Your task to perform on an android device: Clear the shopping cart on walmart.com. Add macbook pro to the cart on walmart.com, then select checkout. Image 0: 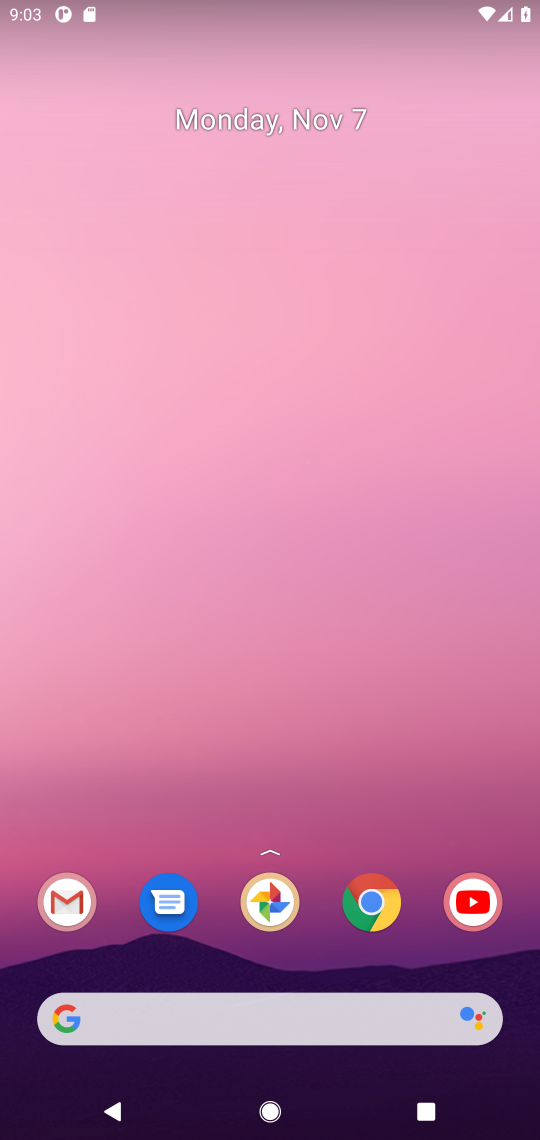
Step 0: click (368, 917)
Your task to perform on an android device: Clear the shopping cart on walmart.com. Add macbook pro to the cart on walmart.com, then select checkout. Image 1: 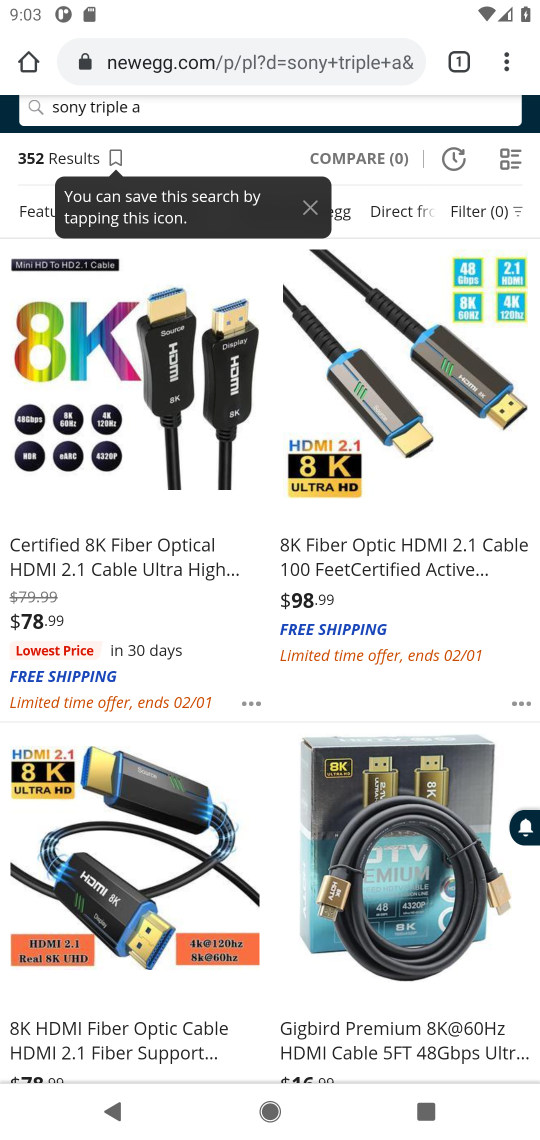
Step 1: click (248, 67)
Your task to perform on an android device: Clear the shopping cart on walmart.com. Add macbook pro to the cart on walmart.com, then select checkout. Image 2: 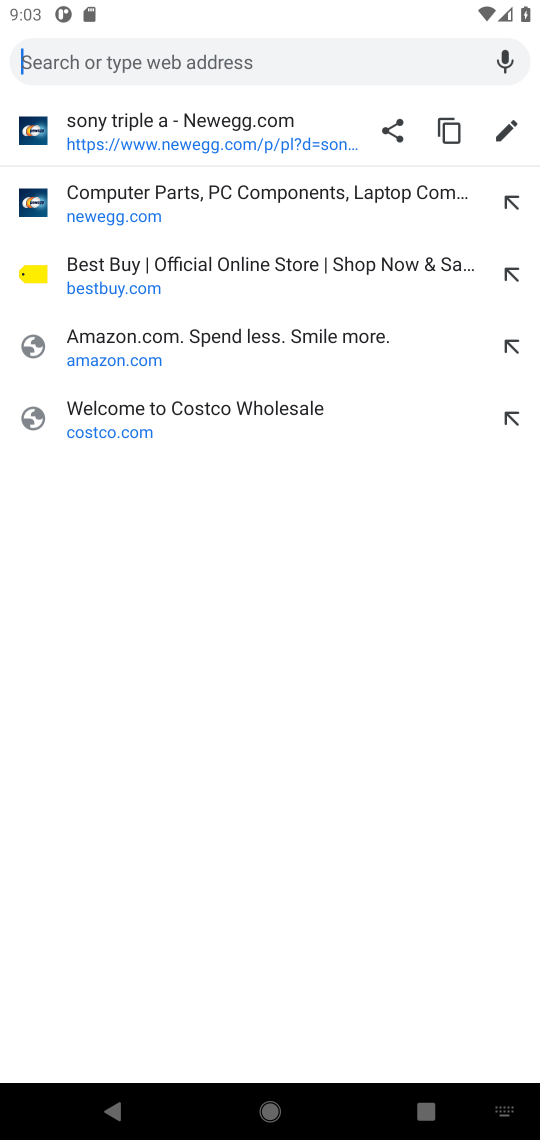
Step 2: click (248, 67)
Your task to perform on an android device: Clear the shopping cart on walmart.com. Add macbook pro to the cart on walmart.com, then select checkout. Image 3: 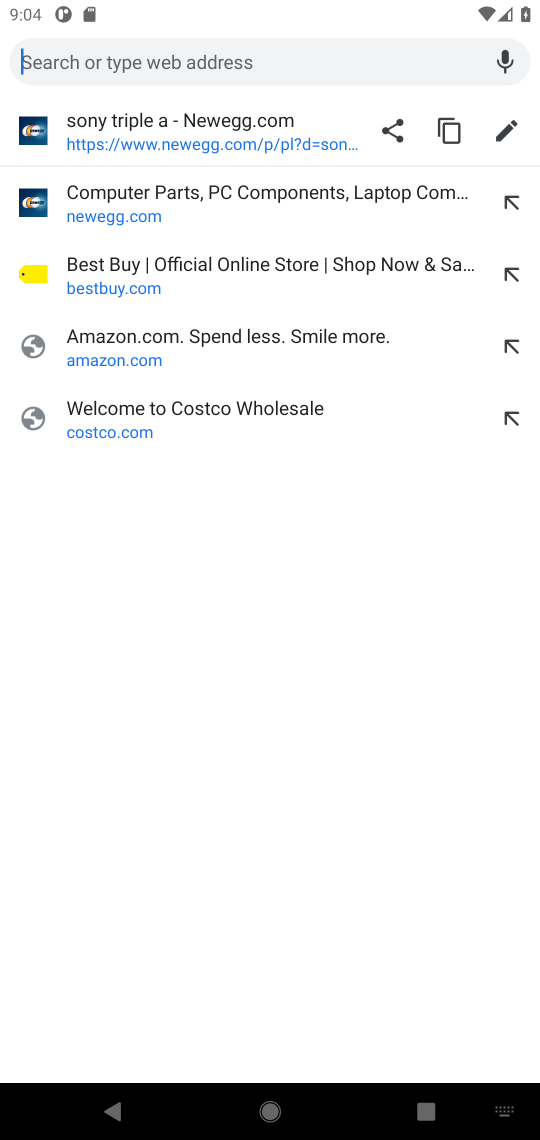
Step 3: type "walmart.com"
Your task to perform on an android device: Clear the shopping cart on walmart.com. Add macbook pro to the cart on walmart.com, then select checkout. Image 4: 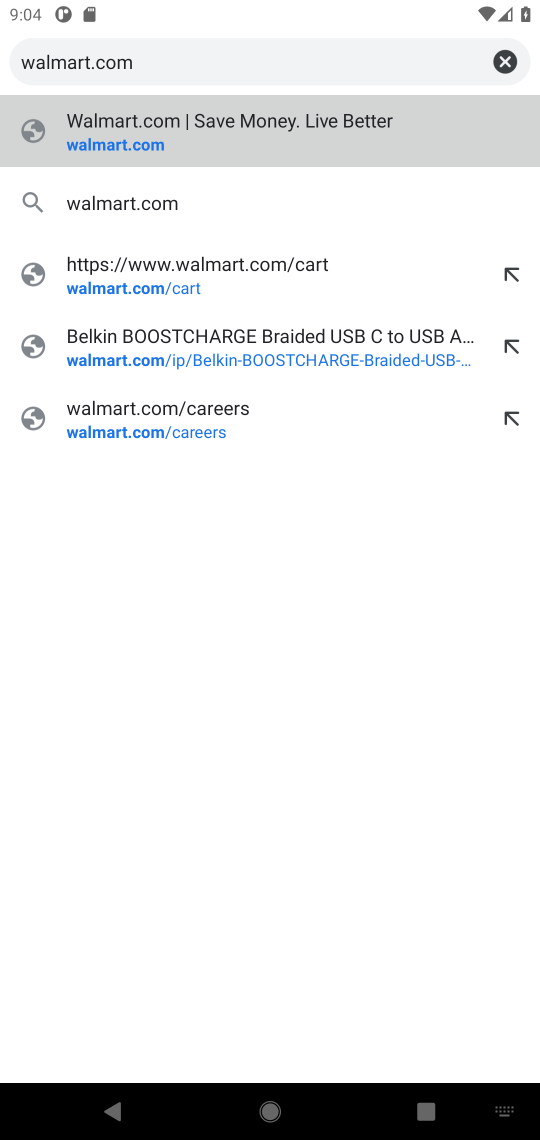
Step 4: click (138, 139)
Your task to perform on an android device: Clear the shopping cart on walmart.com. Add macbook pro to the cart on walmart.com, then select checkout. Image 5: 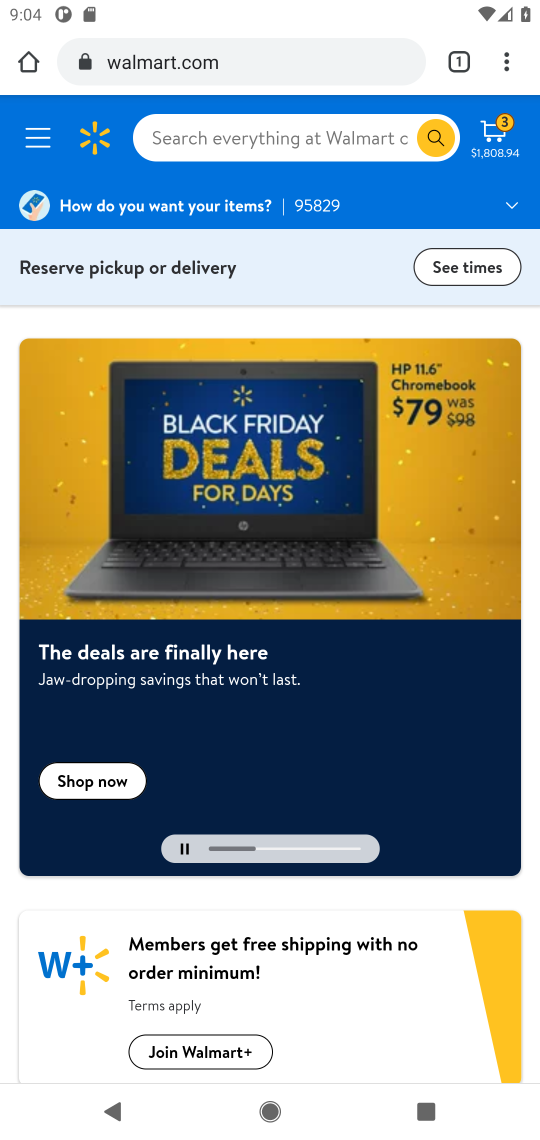
Step 5: click (500, 125)
Your task to perform on an android device: Clear the shopping cart on walmart.com. Add macbook pro to the cart on walmart.com, then select checkout. Image 6: 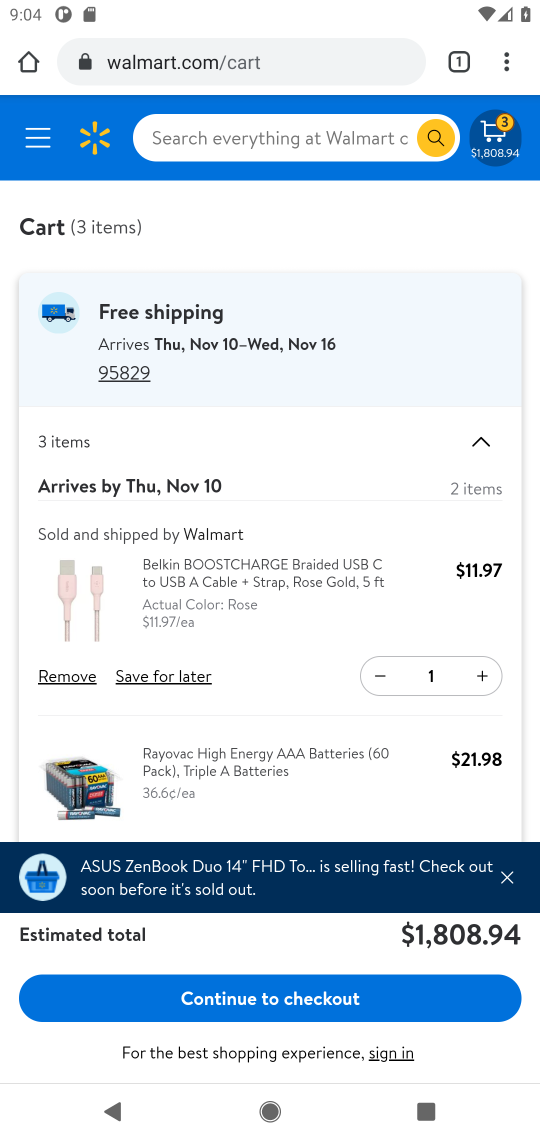
Step 6: click (49, 678)
Your task to perform on an android device: Clear the shopping cart on walmart.com. Add macbook pro to the cart on walmart.com, then select checkout. Image 7: 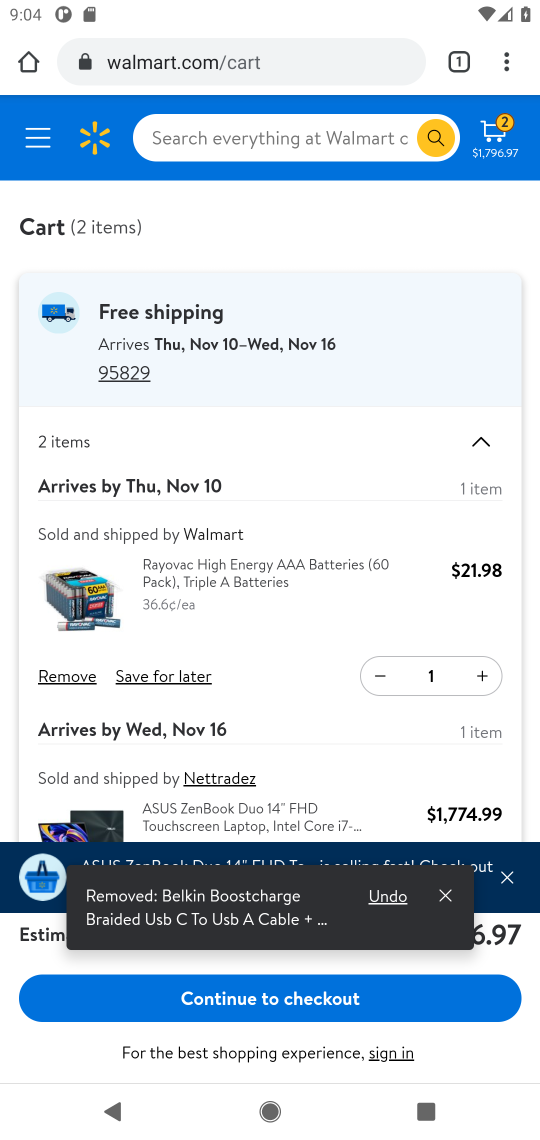
Step 7: click (64, 686)
Your task to perform on an android device: Clear the shopping cart on walmart.com. Add macbook pro to the cart on walmart.com, then select checkout. Image 8: 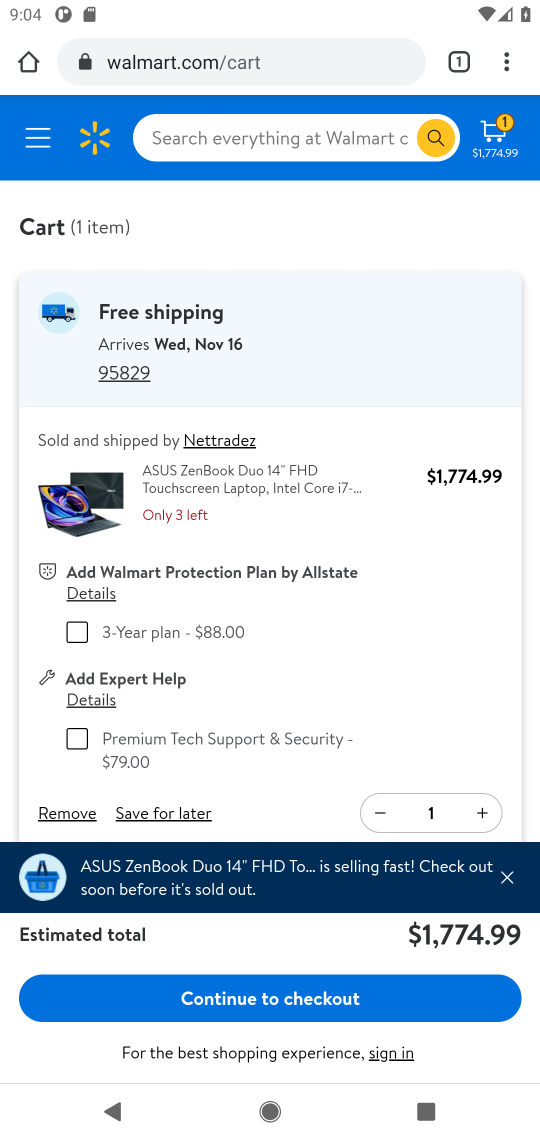
Step 8: click (56, 816)
Your task to perform on an android device: Clear the shopping cart on walmart.com. Add macbook pro to the cart on walmart.com, then select checkout. Image 9: 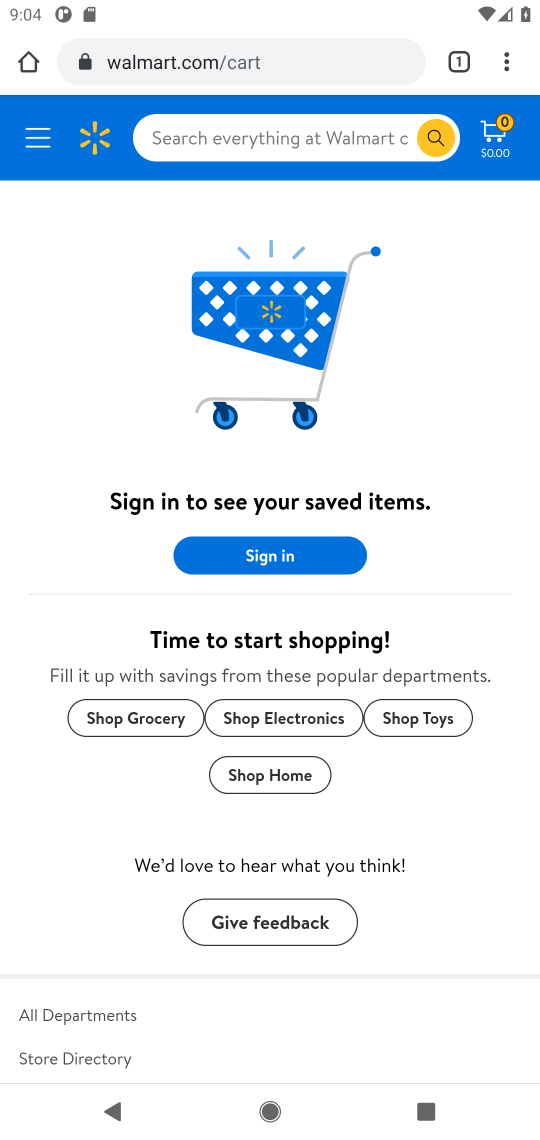
Step 9: click (247, 130)
Your task to perform on an android device: Clear the shopping cart on walmart.com. Add macbook pro to the cart on walmart.com, then select checkout. Image 10: 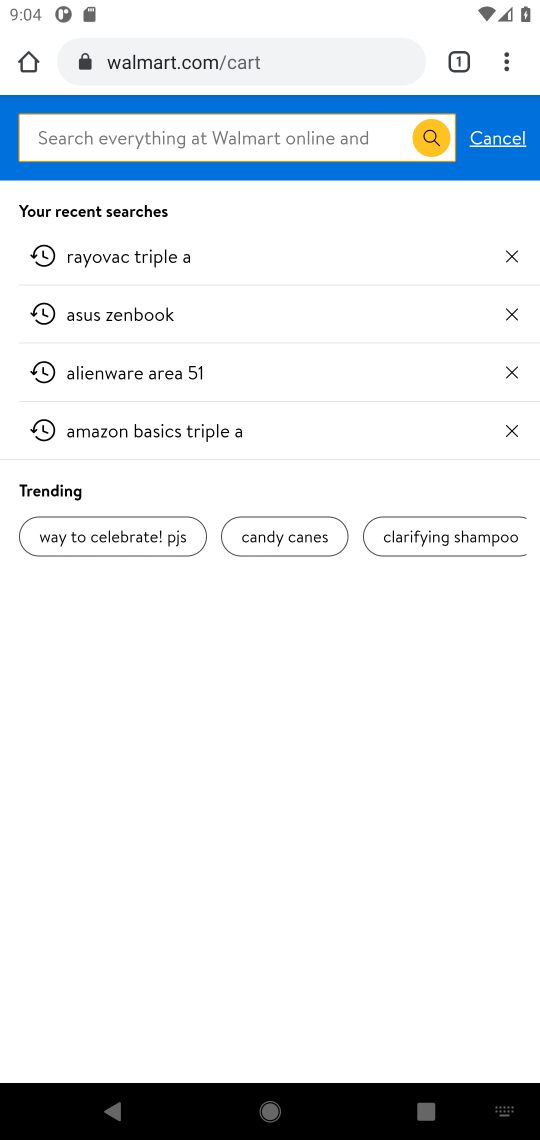
Step 10: type "macbook pro"
Your task to perform on an android device: Clear the shopping cart on walmart.com. Add macbook pro to the cart on walmart.com, then select checkout. Image 11: 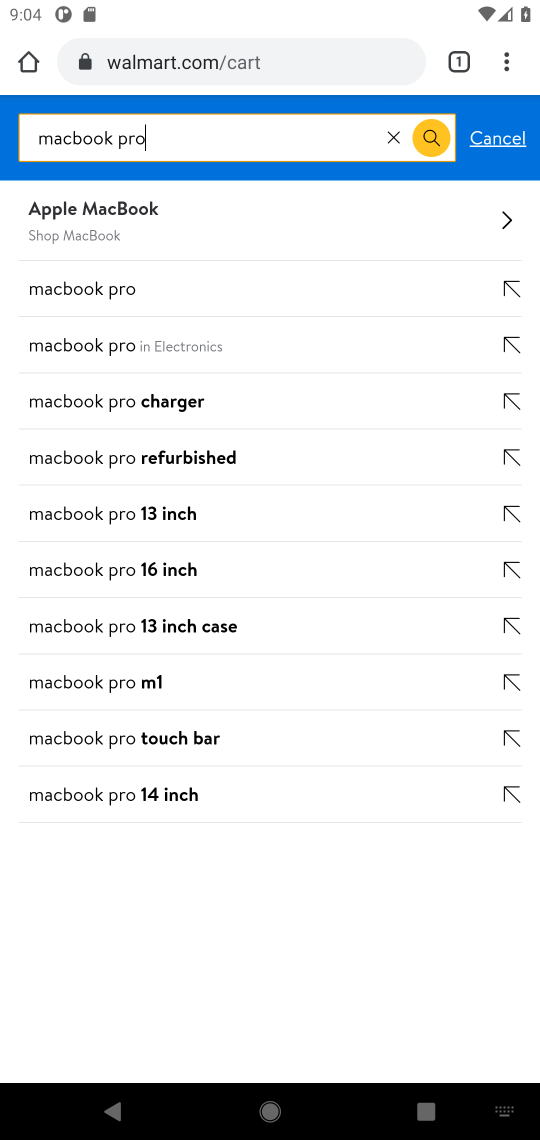
Step 11: click (81, 295)
Your task to perform on an android device: Clear the shopping cart on walmart.com. Add macbook pro to the cart on walmart.com, then select checkout. Image 12: 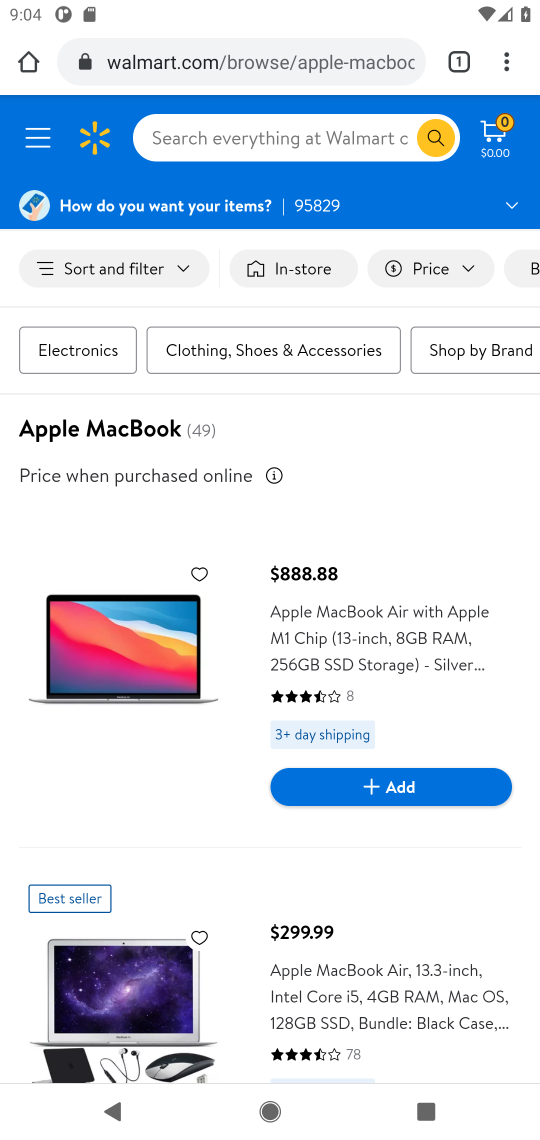
Step 12: drag from (185, 856) to (185, 414)
Your task to perform on an android device: Clear the shopping cart on walmart.com. Add macbook pro to the cart on walmart.com, then select checkout. Image 13: 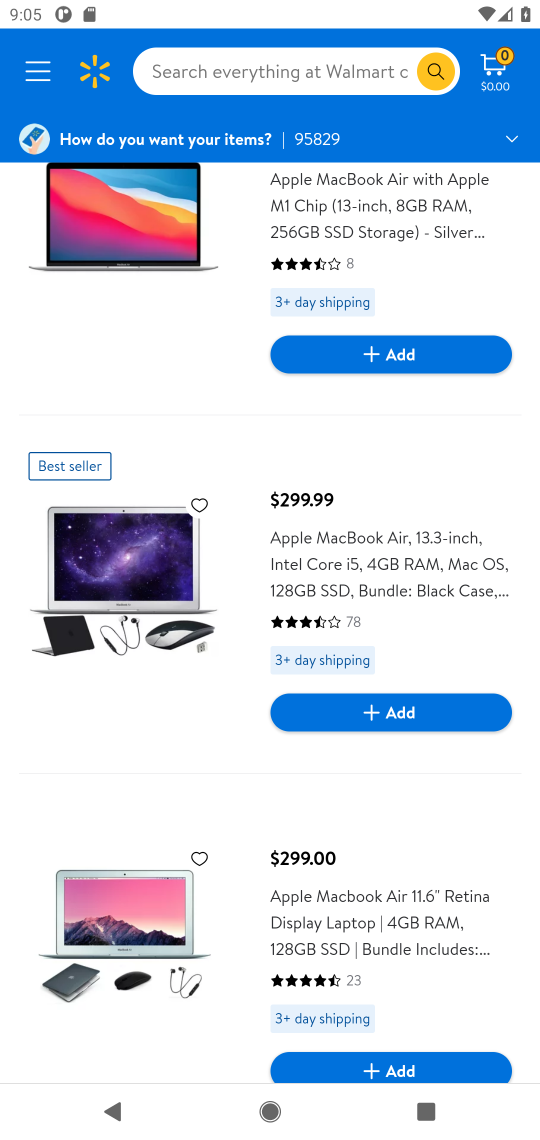
Step 13: drag from (164, 822) to (146, 346)
Your task to perform on an android device: Clear the shopping cart on walmart.com. Add macbook pro to the cart on walmart.com, then select checkout. Image 14: 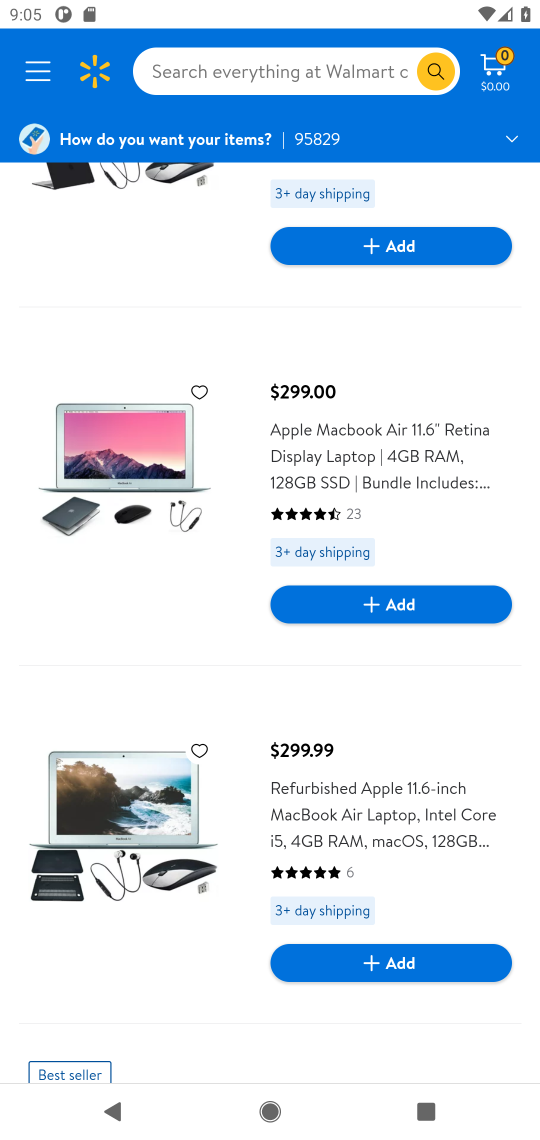
Step 14: drag from (130, 909) to (181, 369)
Your task to perform on an android device: Clear the shopping cart on walmart.com. Add macbook pro to the cart on walmart.com, then select checkout. Image 15: 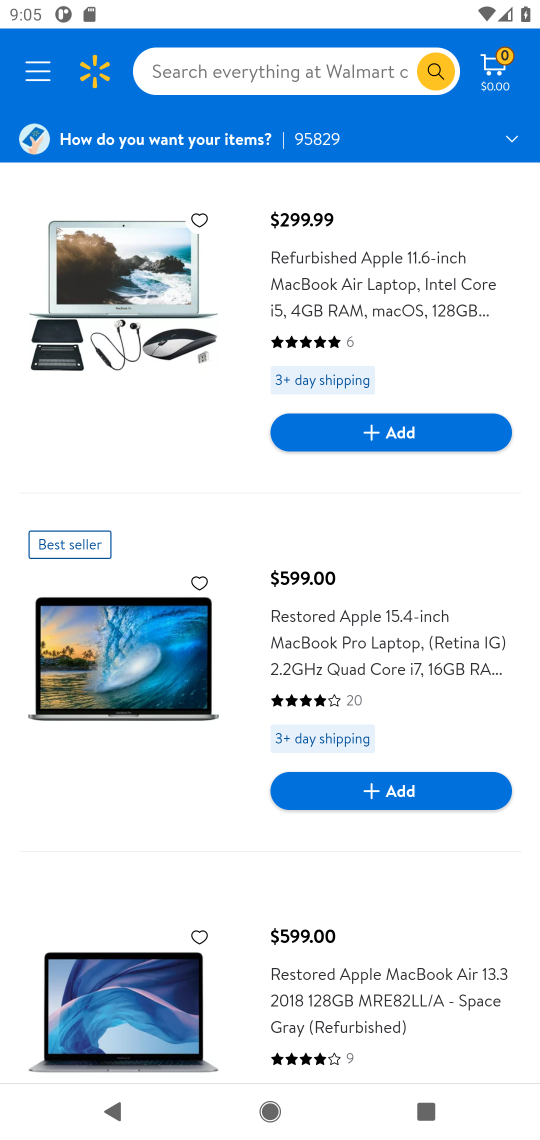
Step 15: click (376, 796)
Your task to perform on an android device: Clear the shopping cart on walmart.com. Add macbook pro to the cart on walmart.com, then select checkout. Image 16: 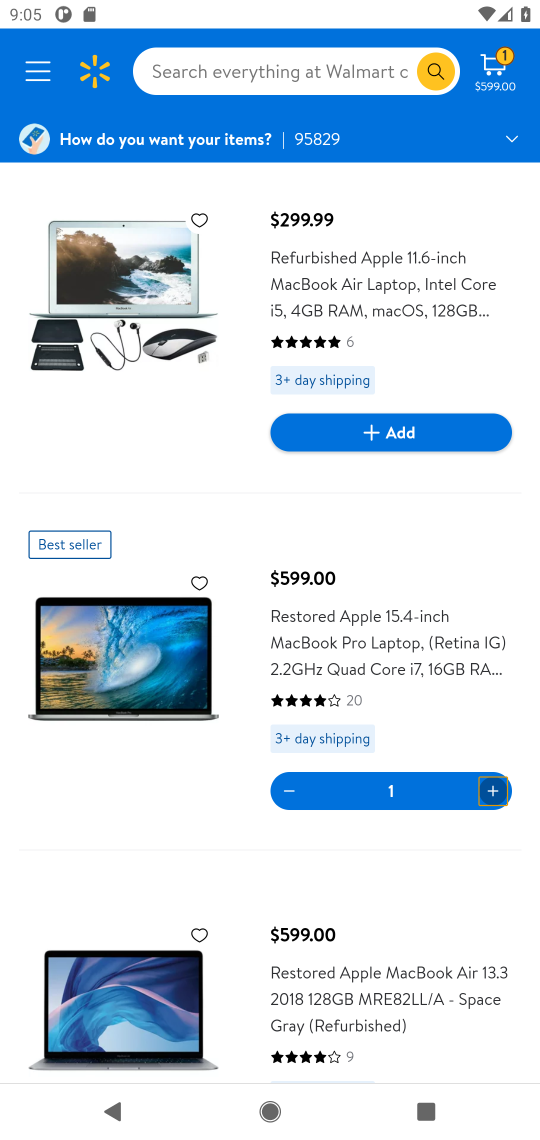
Step 16: click (494, 85)
Your task to perform on an android device: Clear the shopping cart on walmart.com. Add macbook pro to the cart on walmart.com, then select checkout. Image 17: 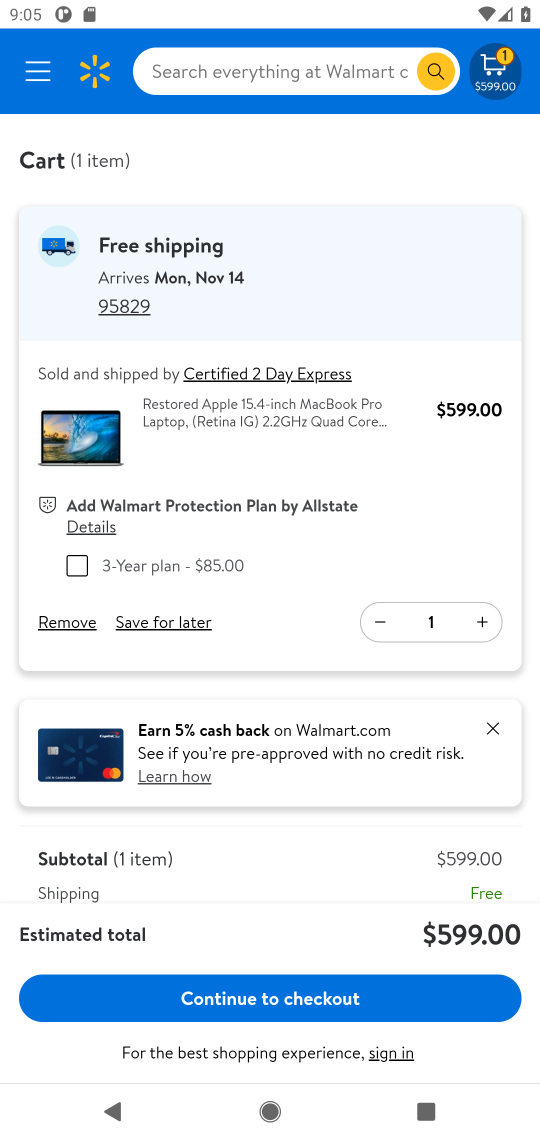
Step 17: click (198, 1001)
Your task to perform on an android device: Clear the shopping cart on walmart.com. Add macbook pro to the cart on walmart.com, then select checkout. Image 18: 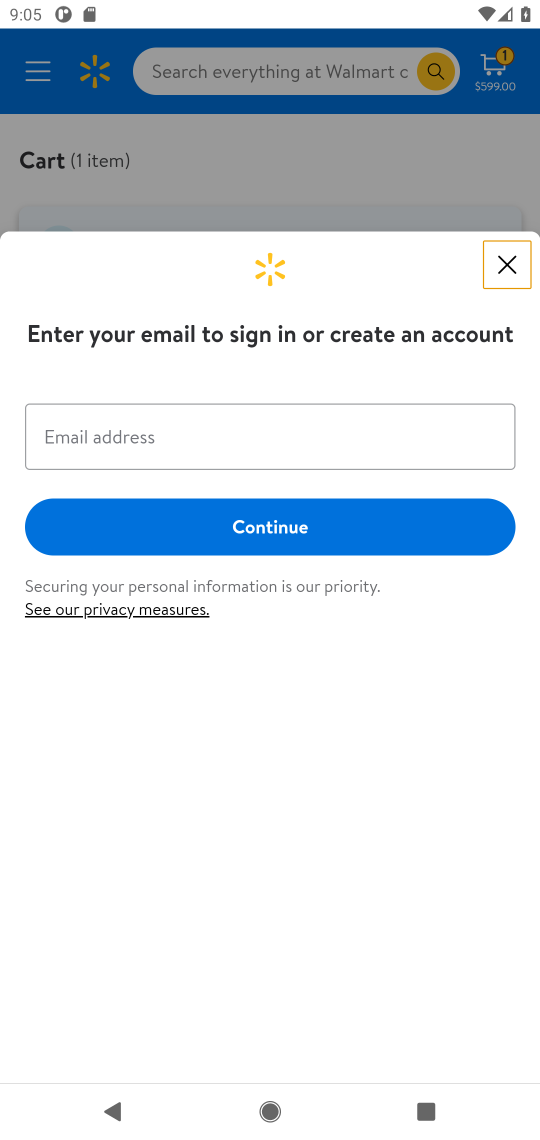
Step 18: task complete